Your task to perform on an android device: turn notification dots off Image 0: 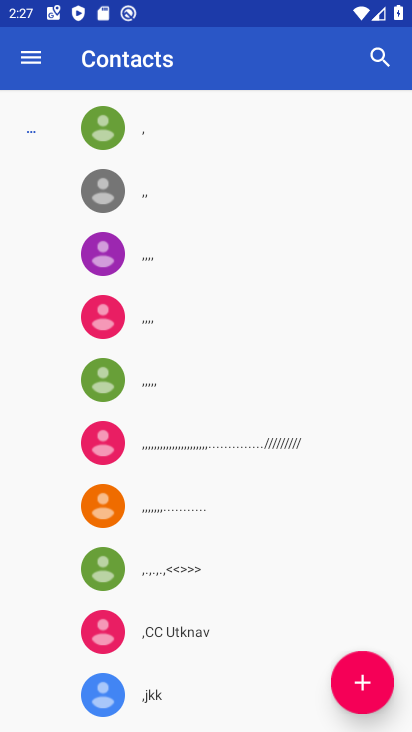
Step 0: press home button
Your task to perform on an android device: turn notification dots off Image 1: 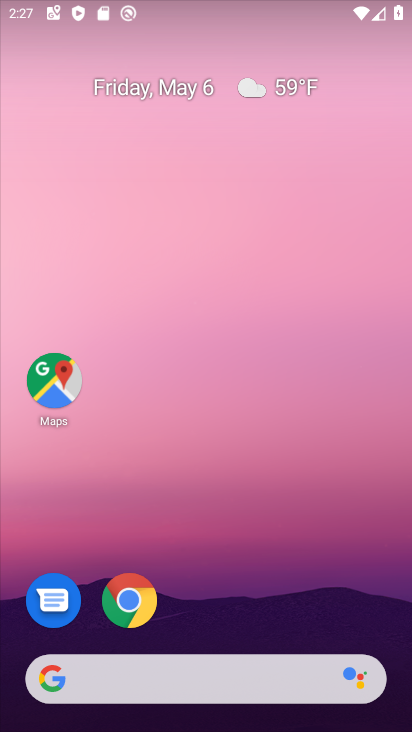
Step 1: drag from (218, 596) to (218, 42)
Your task to perform on an android device: turn notification dots off Image 2: 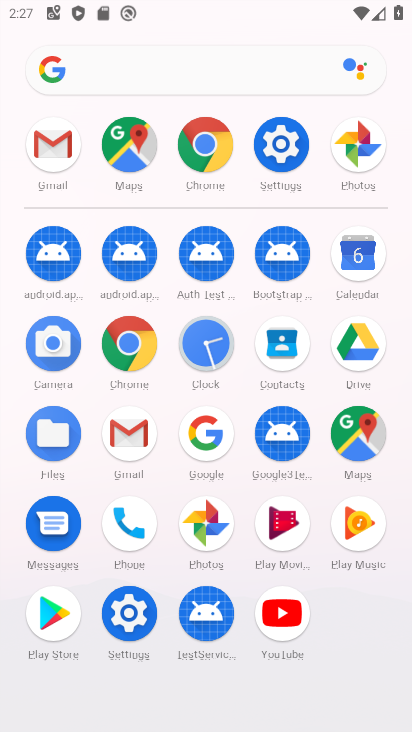
Step 2: click (272, 141)
Your task to perform on an android device: turn notification dots off Image 3: 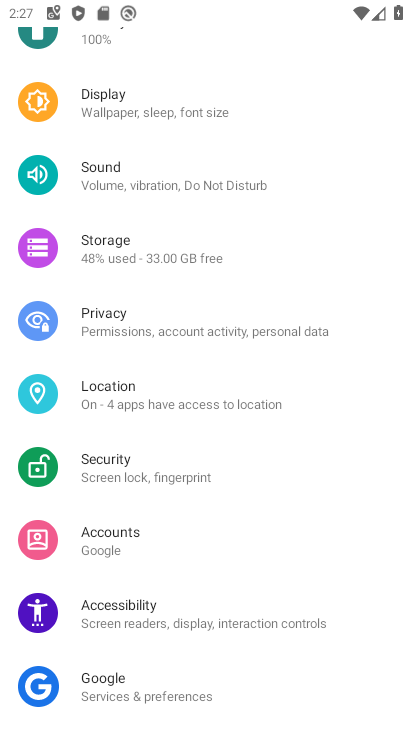
Step 3: drag from (218, 556) to (321, 662)
Your task to perform on an android device: turn notification dots off Image 4: 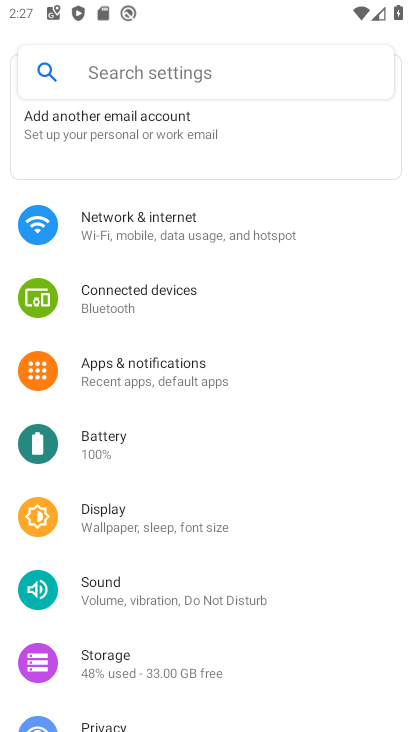
Step 4: drag from (163, 604) to (189, 367)
Your task to perform on an android device: turn notification dots off Image 5: 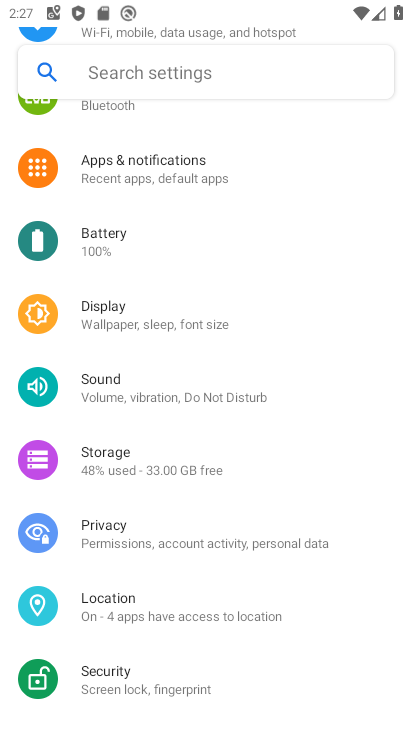
Step 5: click (112, 176)
Your task to perform on an android device: turn notification dots off Image 6: 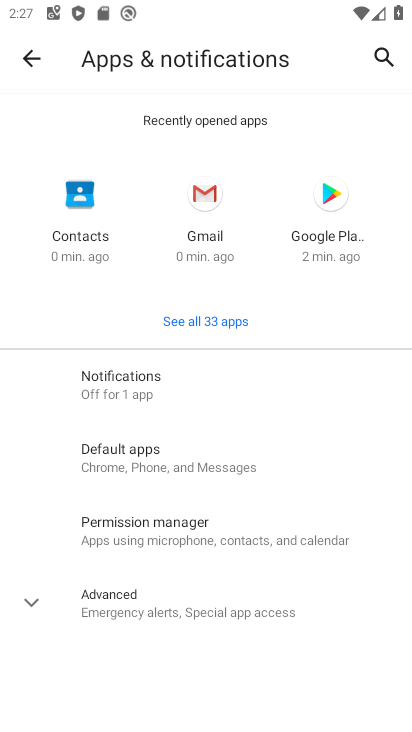
Step 6: click (154, 389)
Your task to perform on an android device: turn notification dots off Image 7: 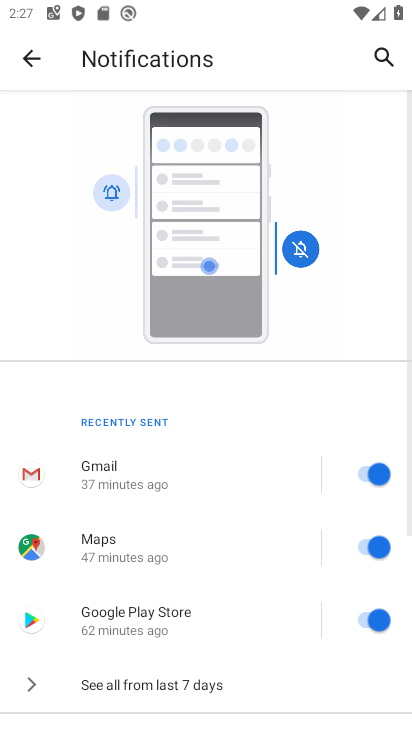
Step 7: drag from (289, 599) to (310, 47)
Your task to perform on an android device: turn notification dots off Image 8: 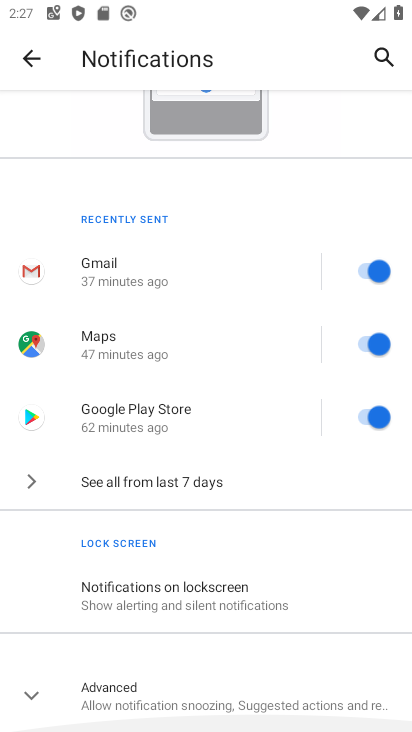
Step 8: click (163, 708)
Your task to perform on an android device: turn notification dots off Image 9: 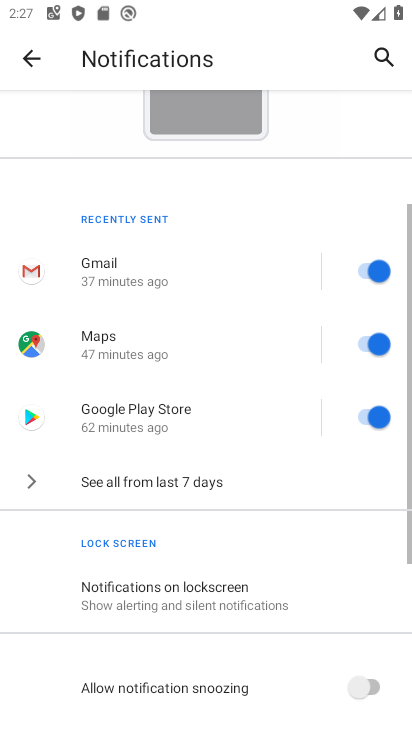
Step 9: task complete